Your task to perform on an android device: visit the assistant section in the google photos Image 0: 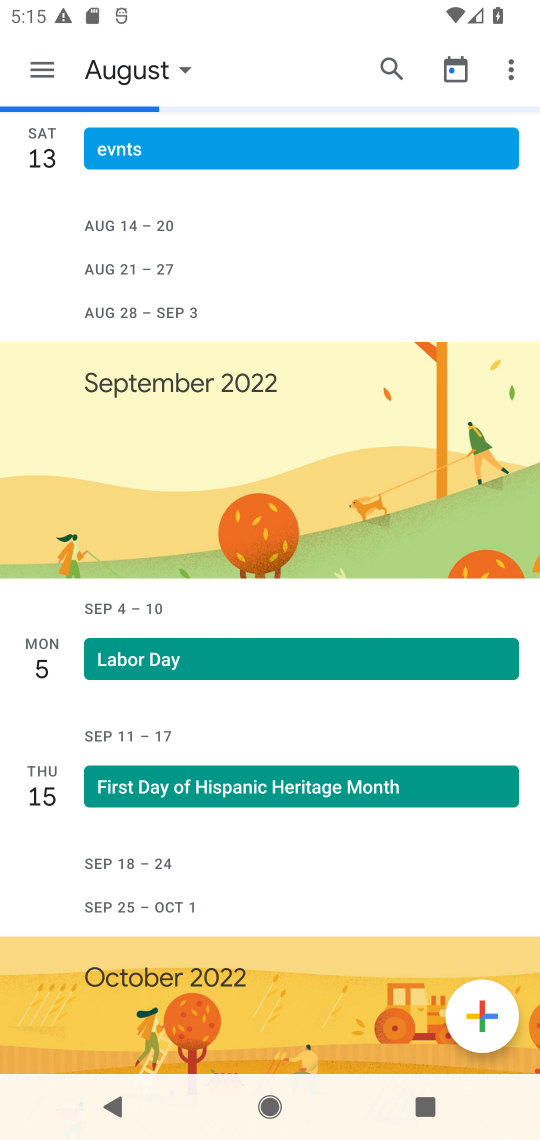
Step 0: press home button
Your task to perform on an android device: visit the assistant section in the google photos Image 1: 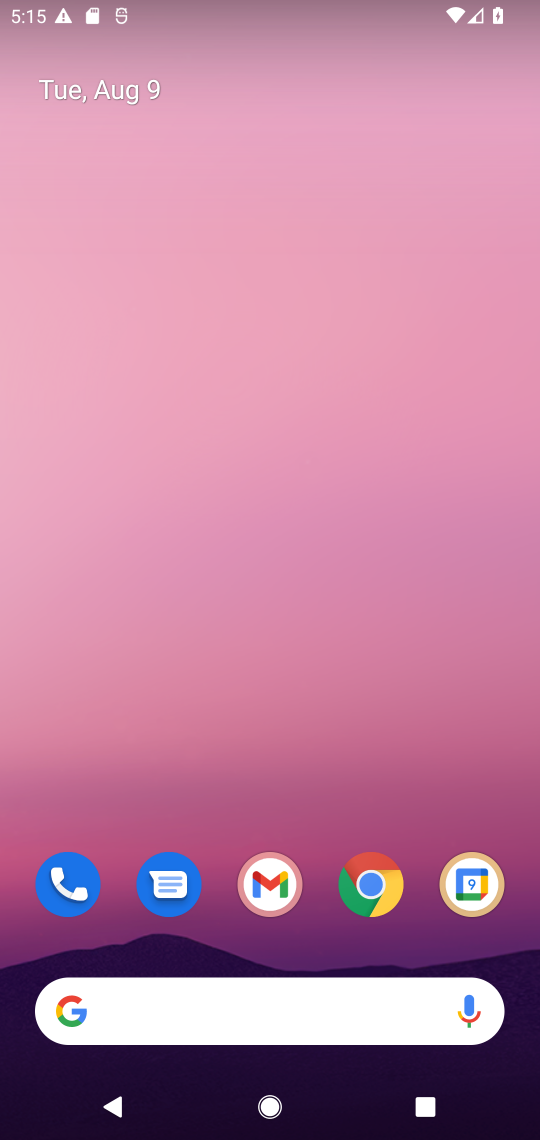
Step 1: drag from (292, 1029) to (271, 140)
Your task to perform on an android device: visit the assistant section in the google photos Image 2: 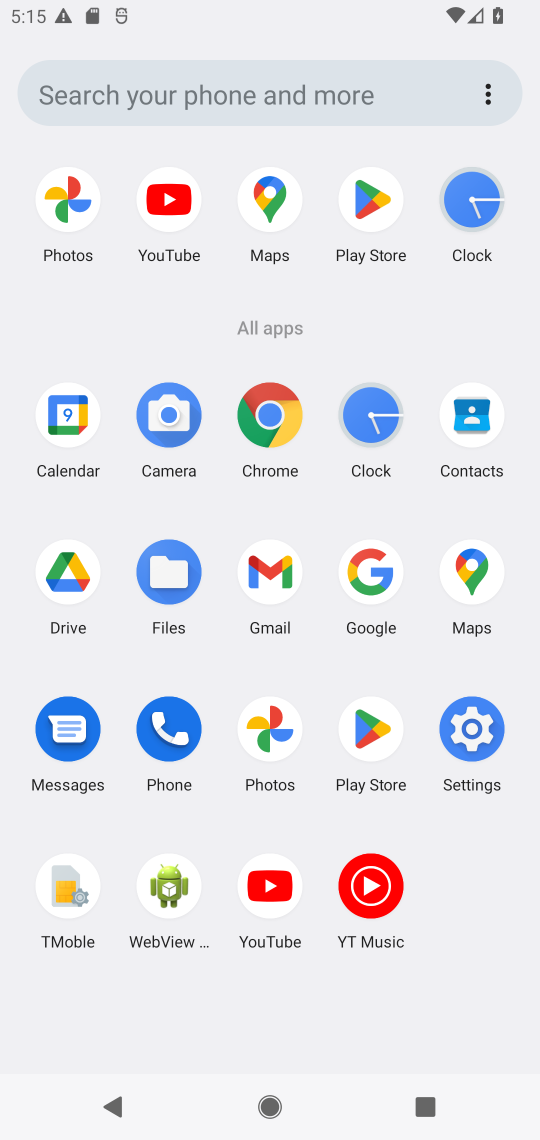
Step 2: click (271, 735)
Your task to perform on an android device: visit the assistant section in the google photos Image 3: 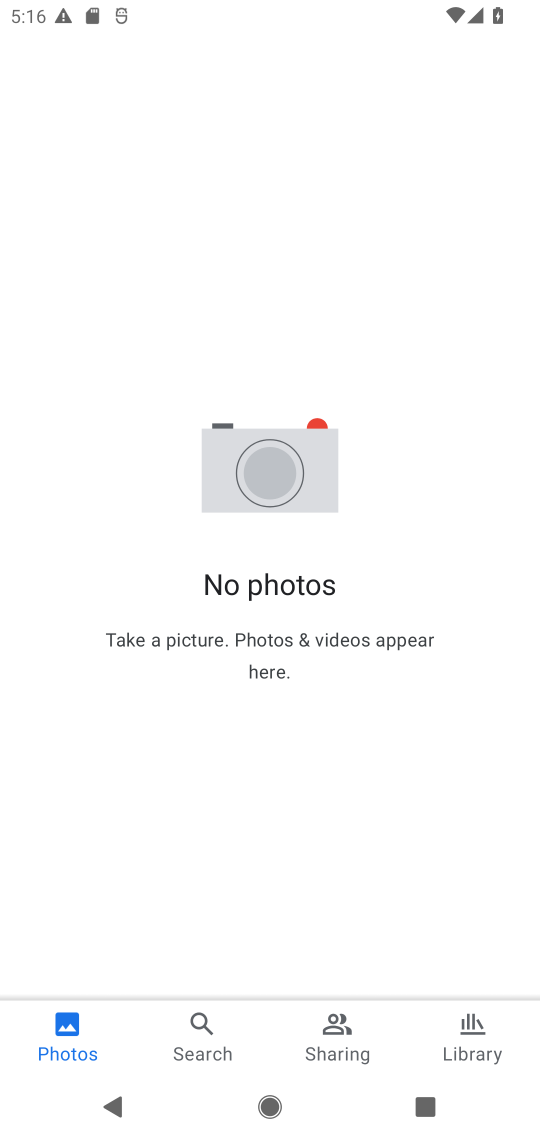
Step 3: click (470, 1031)
Your task to perform on an android device: visit the assistant section in the google photos Image 4: 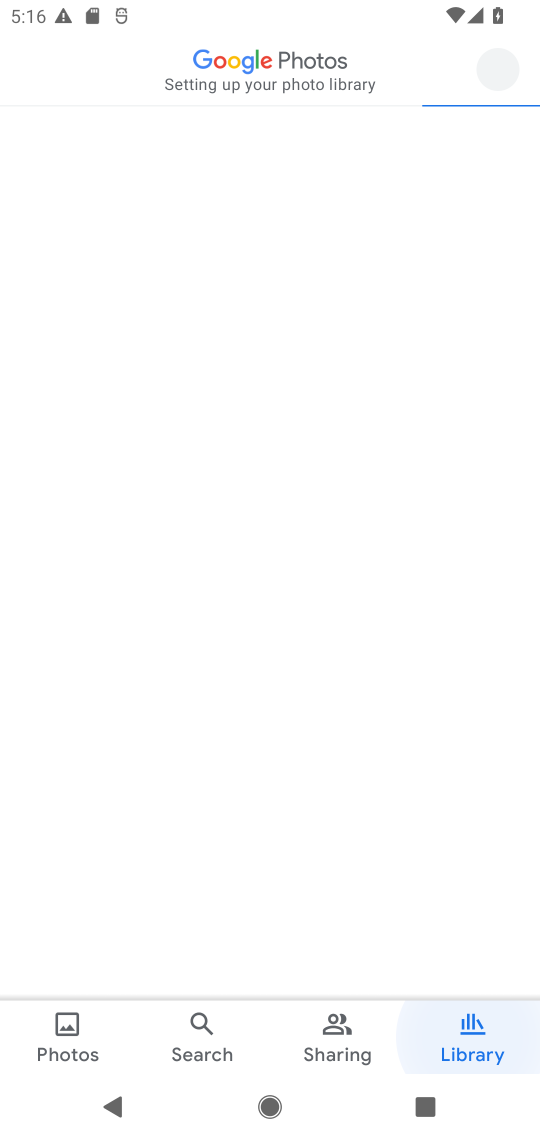
Step 4: click (338, 1030)
Your task to perform on an android device: visit the assistant section in the google photos Image 5: 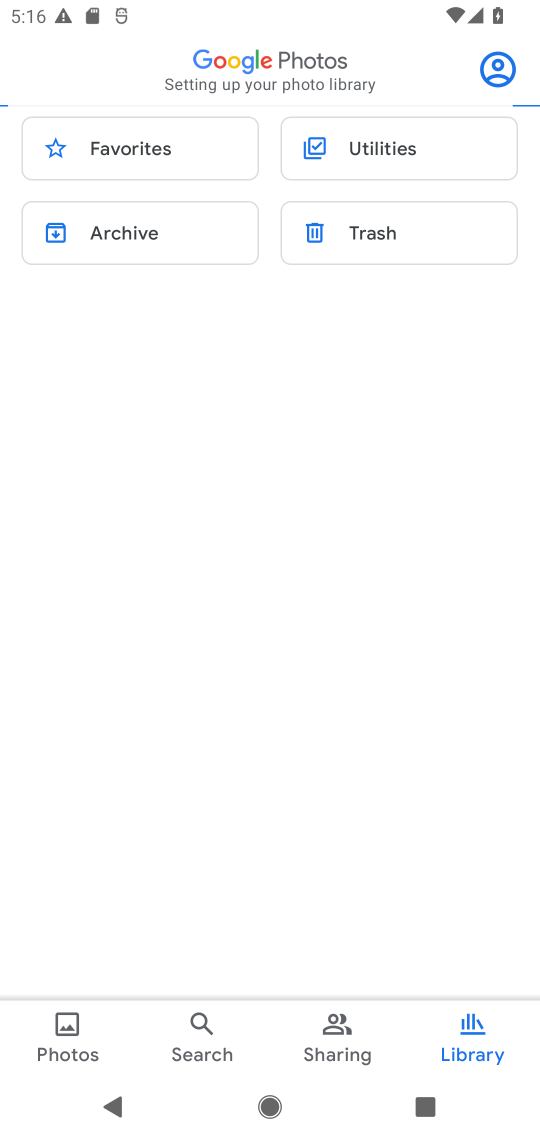
Step 5: click (65, 1034)
Your task to perform on an android device: visit the assistant section in the google photos Image 6: 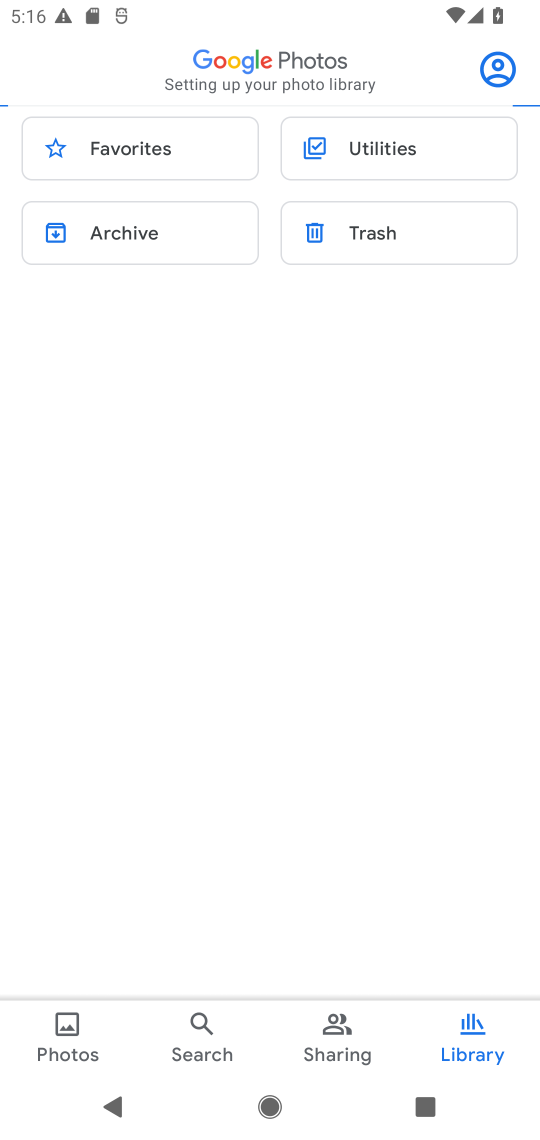
Step 6: click (65, 1034)
Your task to perform on an android device: visit the assistant section in the google photos Image 7: 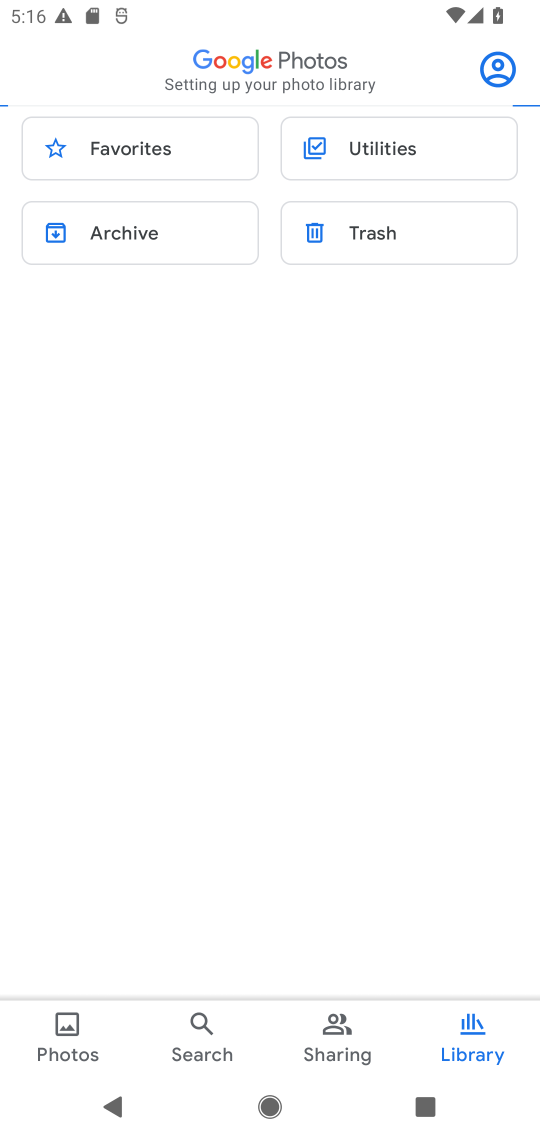
Step 7: click (69, 1026)
Your task to perform on an android device: visit the assistant section in the google photos Image 8: 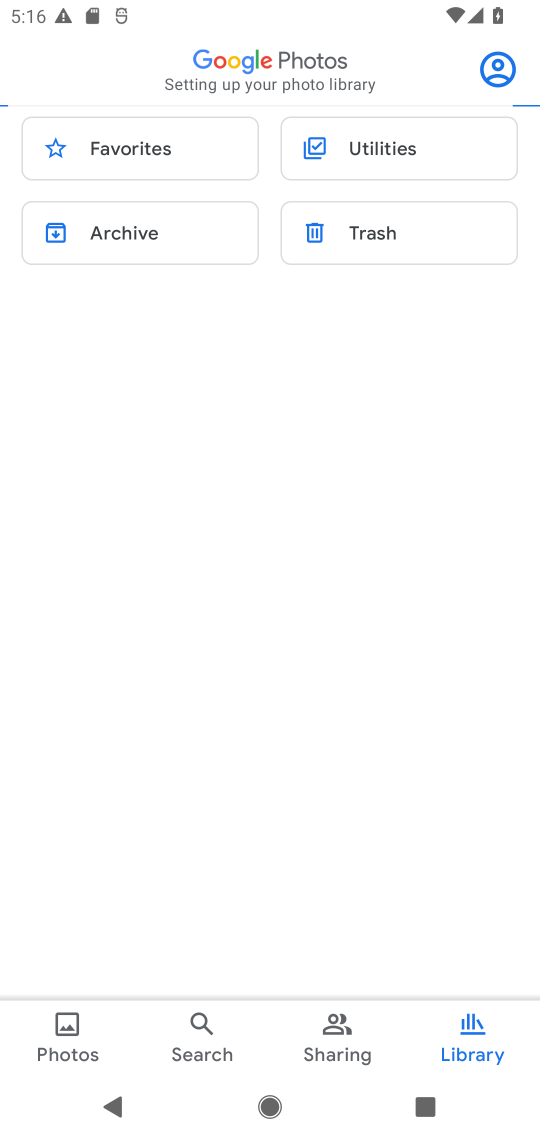
Step 8: click (198, 1022)
Your task to perform on an android device: visit the assistant section in the google photos Image 9: 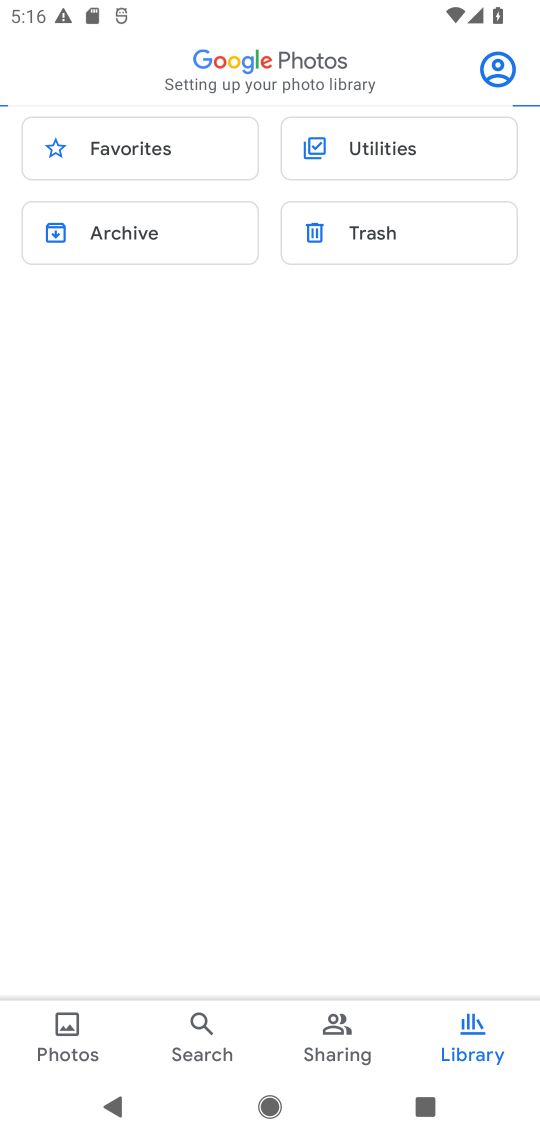
Step 9: click (342, 1035)
Your task to perform on an android device: visit the assistant section in the google photos Image 10: 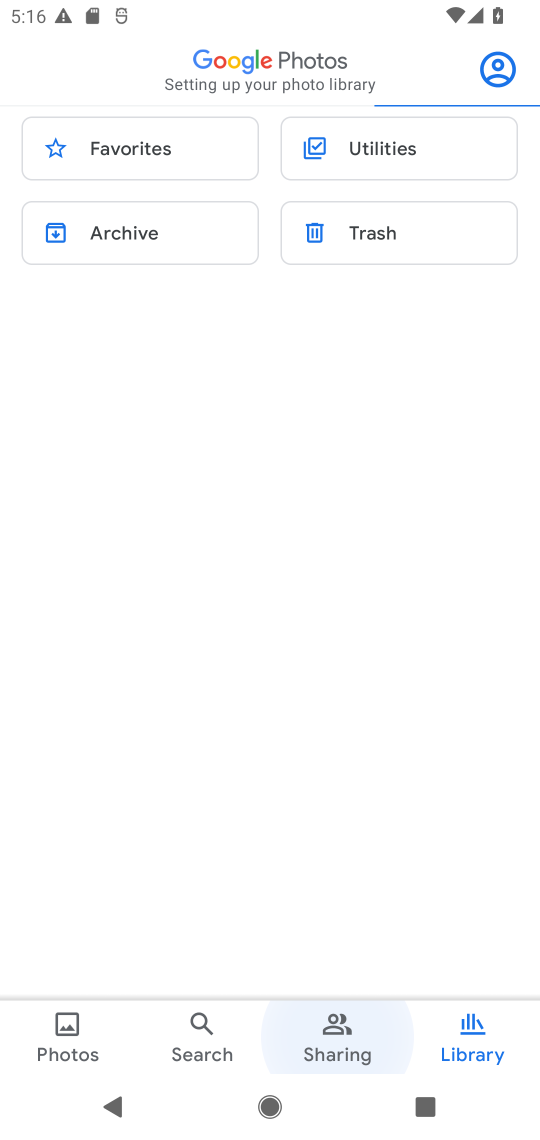
Step 10: click (70, 1037)
Your task to perform on an android device: visit the assistant section in the google photos Image 11: 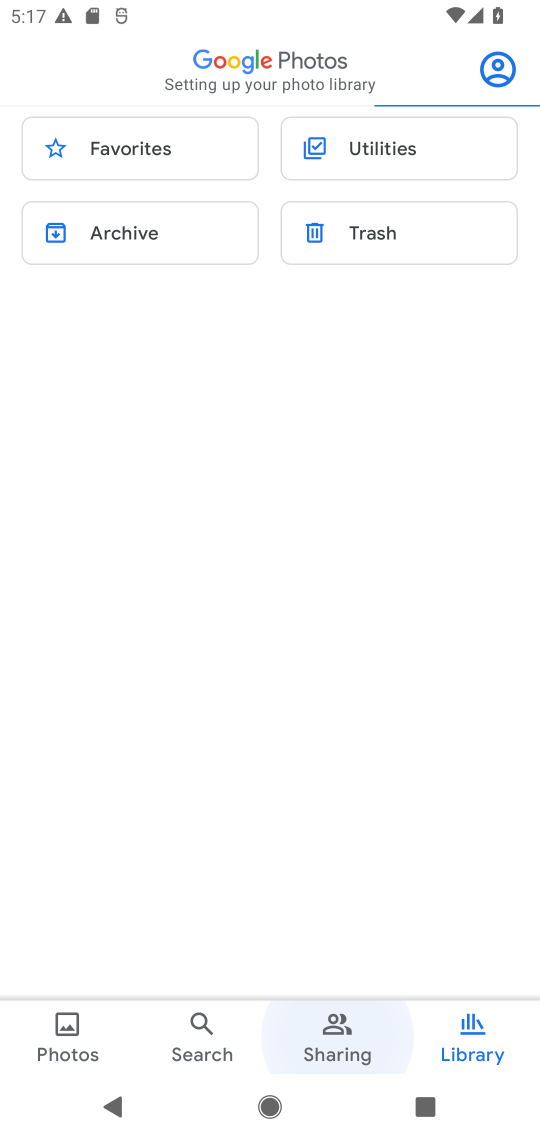
Step 11: click (74, 1024)
Your task to perform on an android device: visit the assistant section in the google photos Image 12: 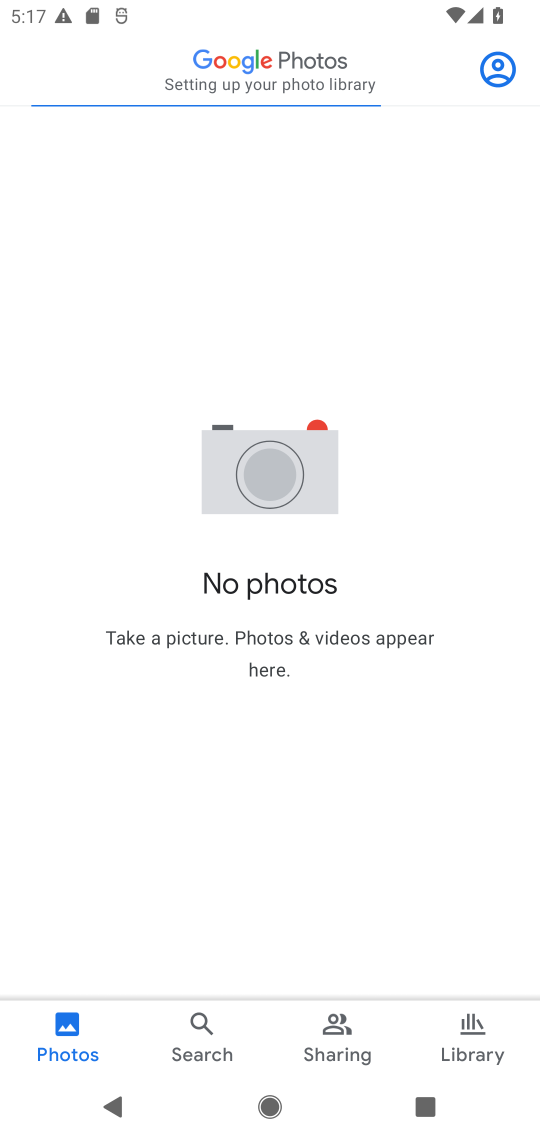
Step 12: task complete